Your task to perform on an android device: check battery use Image 0: 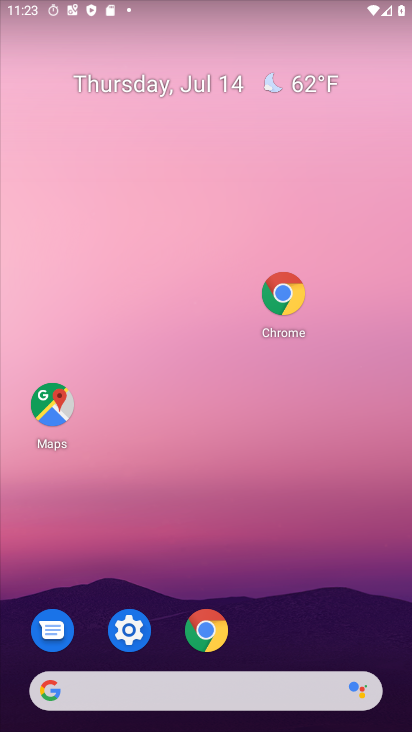
Step 0: drag from (202, 508) to (191, 151)
Your task to perform on an android device: check battery use Image 1: 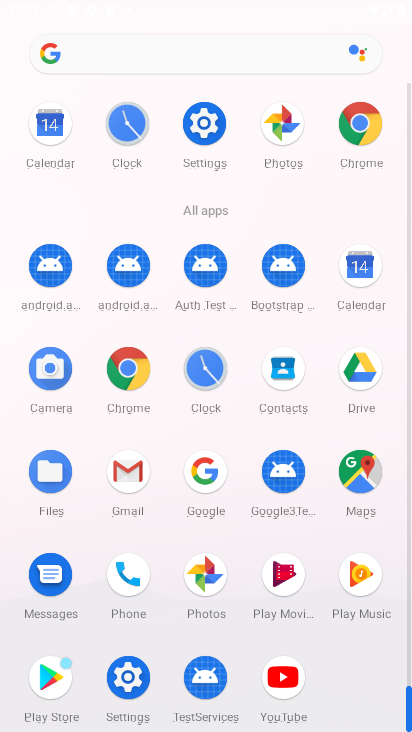
Step 1: drag from (258, 626) to (240, 176)
Your task to perform on an android device: check battery use Image 2: 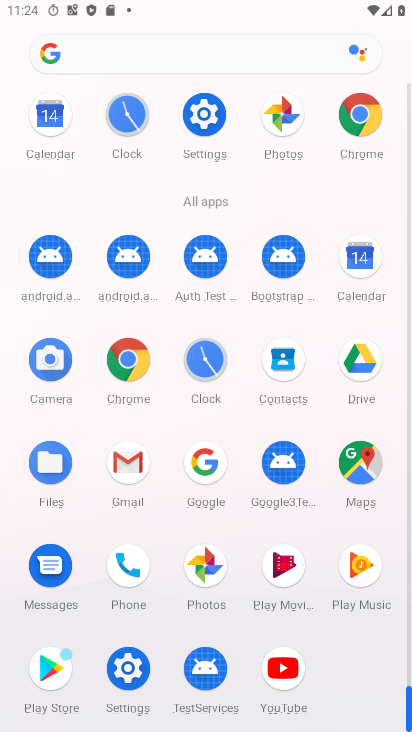
Step 2: click (199, 123)
Your task to perform on an android device: check battery use Image 3: 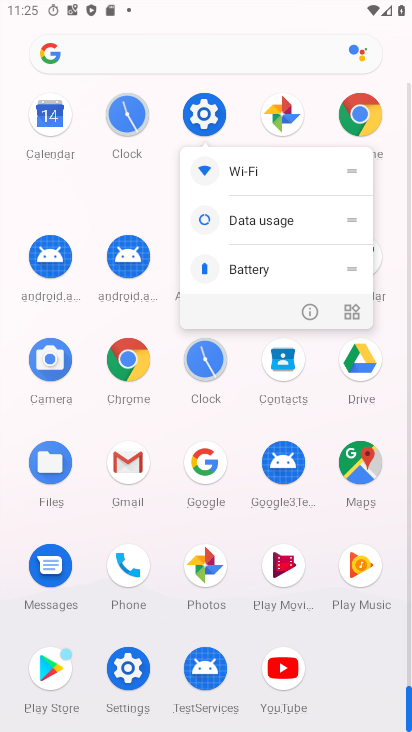
Step 3: click (247, 273)
Your task to perform on an android device: check battery use Image 4: 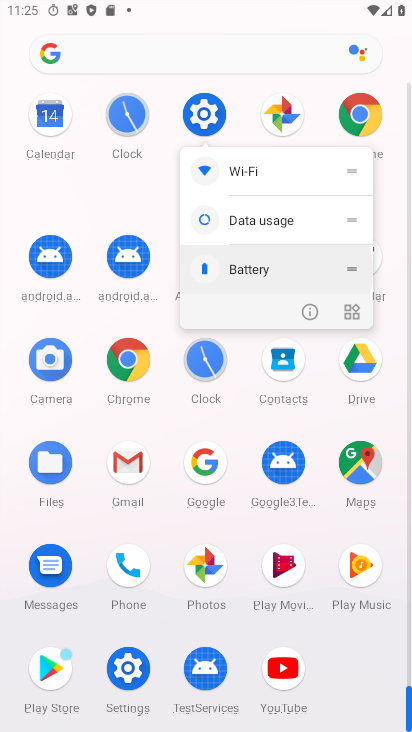
Step 4: click (246, 274)
Your task to perform on an android device: check battery use Image 5: 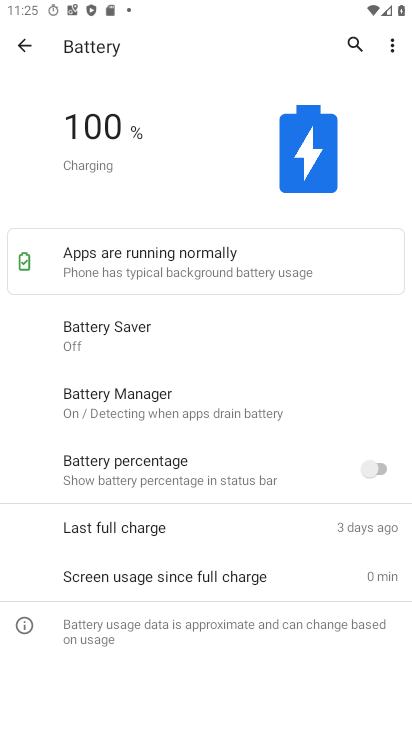
Step 5: task complete